Your task to perform on an android device: clear all cookies in the chrome app Image 0: 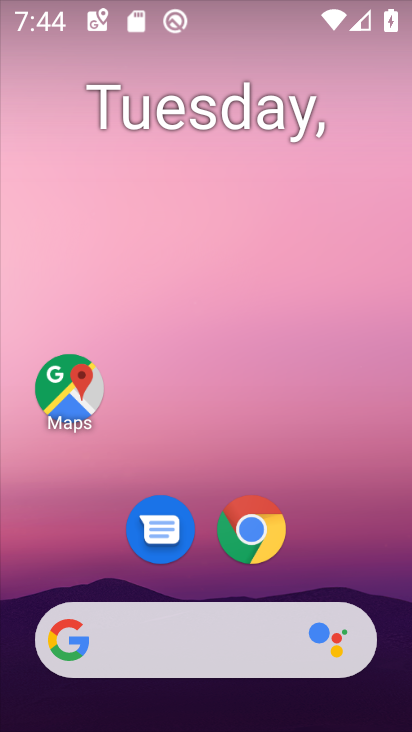
Step 0: click (258, 510)
Your task to perform on an android device: clear all cookies in the chrome app Image 1: 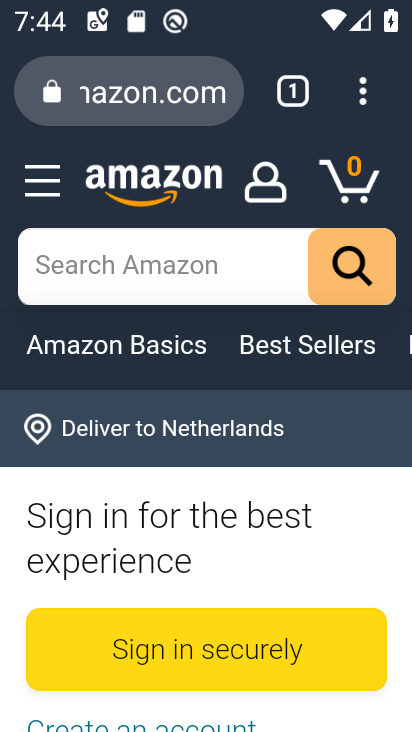
Step 1: drag from (359, 83) to (95, 506)
Your task to perform on an android device: clear all cookies in the chrome app Image 2: 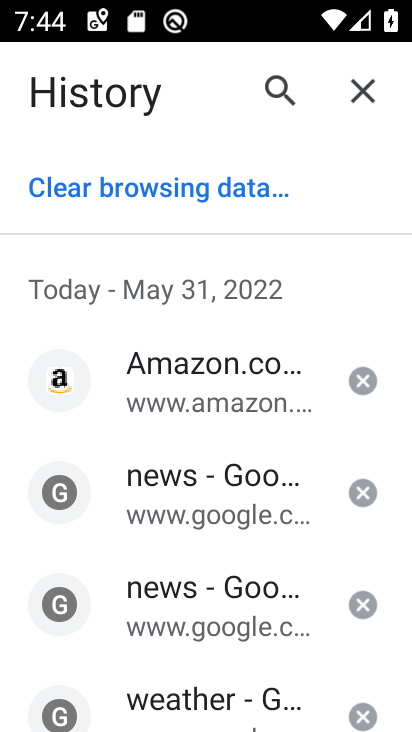
Step 2: click (154, 195)
Your task to perform on an android device: clear all cookies in the chrome app Image 3: 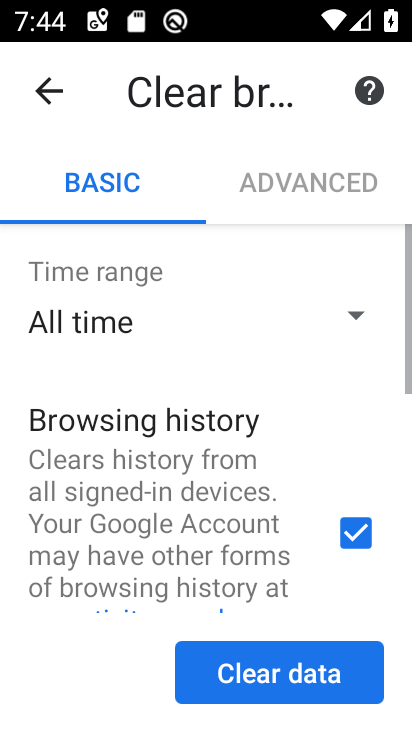
Step 3: drag from (274, 618) to (266, 264)
Your task to perform on an android device: clear all cookies in the chrome app Image 4: 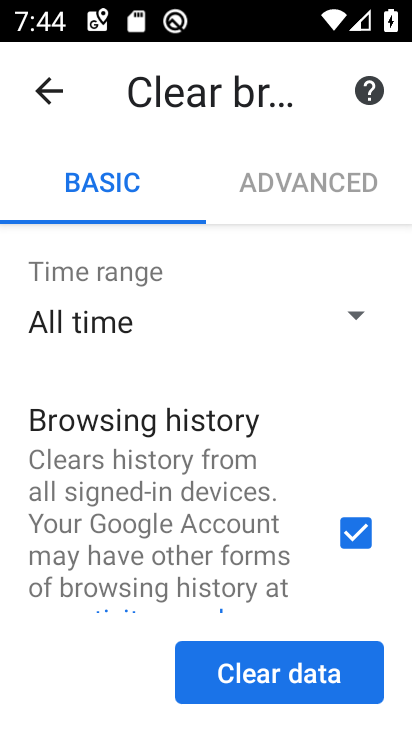
Step 4: drag from (165, 504) to (197, 289)
Your task to perform on an android device: clear all cookies in the chrome app Image 5: 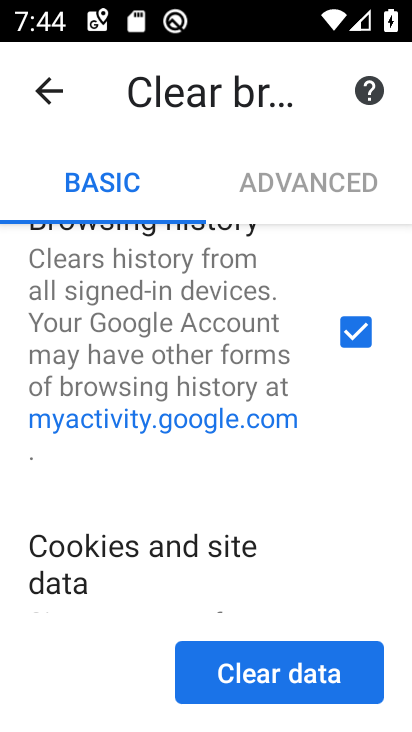
Step 5: click (353, 329)
Your task to perform on an android device: clear all cookies in the chrome app Image 6: 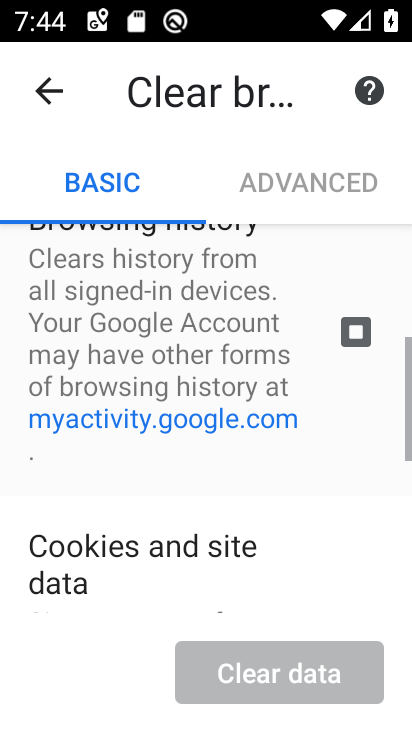
Step 6: drag from (174, 541) to (216, 130)
Your task to perform on an android device: clear all cookies in the chrome app Image 7: 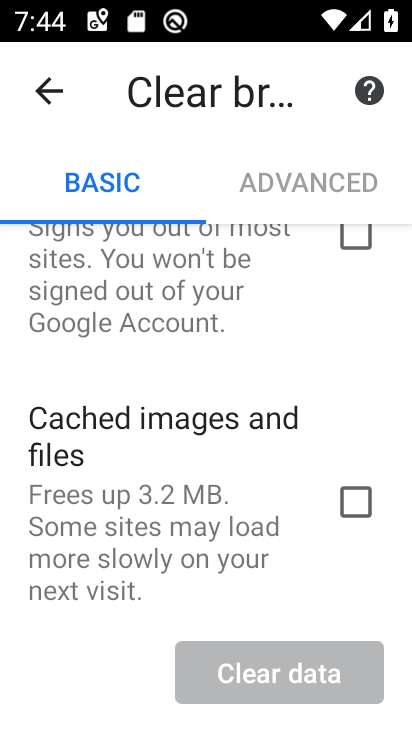
Step 7: click (360, 239)
Your task to perform on an android device: clear all cookies in the chrome app Image 8: 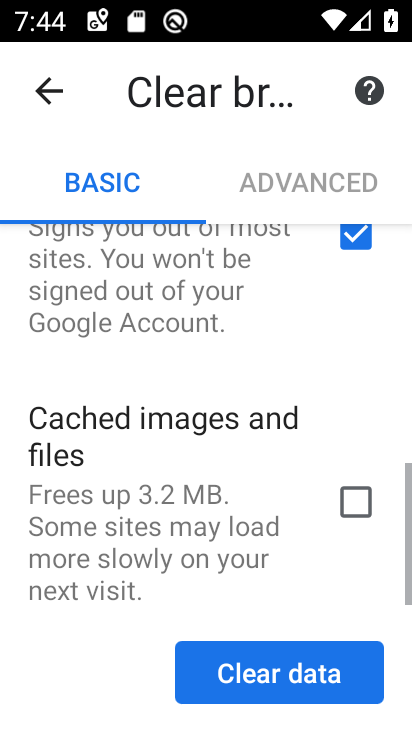
Step 8: click (246, 664)
Your task to perform on an android device: clear all cookies in the chrome app Image 9: 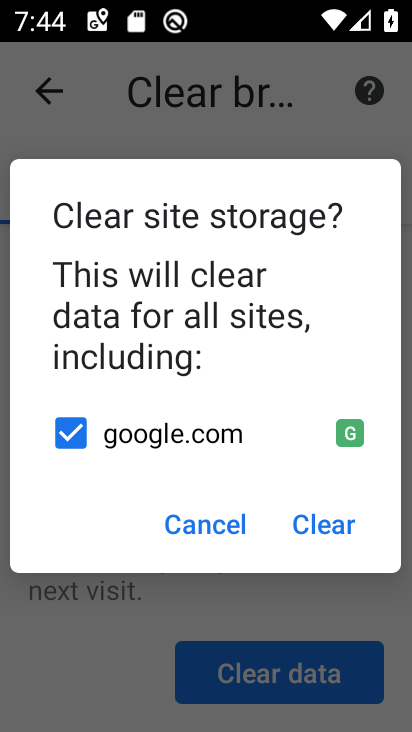
Step 9: click (331, 518)
Your task to perform on an android device: clear all cookies in the chrome app Image 10: 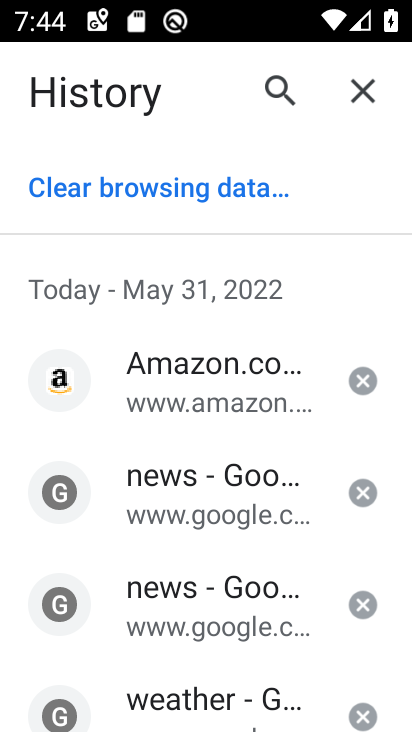
Step 10: task complete